Your task to perform on an android device: see sites visited before in the chrome app Image 0: 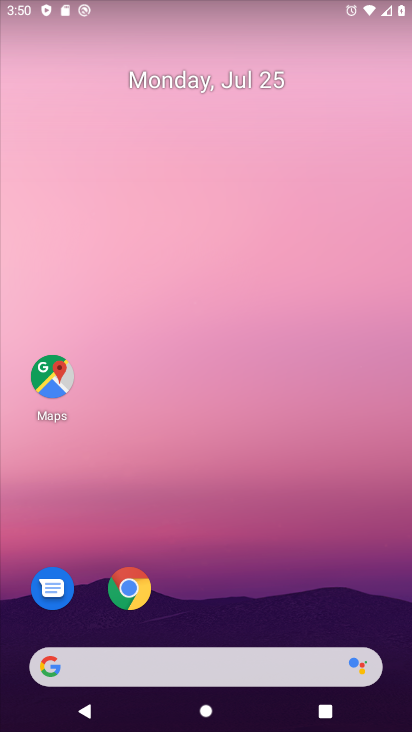
Step 0: click (131, 583)
Your task to perform on an android device: see sites visited before in the chrome app Image 1: 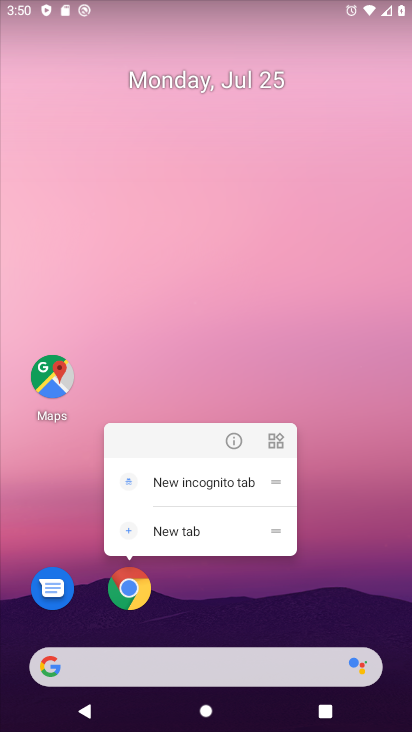
Step 1: click (131, 583)
Your task to perform on an android device: see sites visited before in the chrome app Image 2: 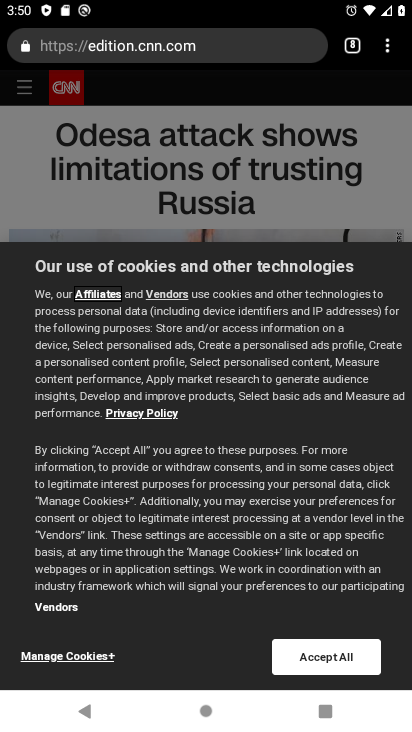
Step 2: click (389, 52)
Your task to perform on an android device: see sites visited before in the chrome app Image 3: 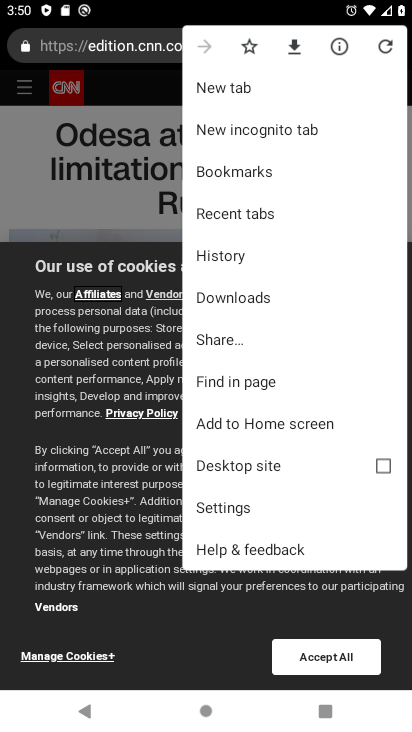
Step 3: click (231, 205)
Your task to perform on an android device: see sites visited before in the chrome app Image 4: 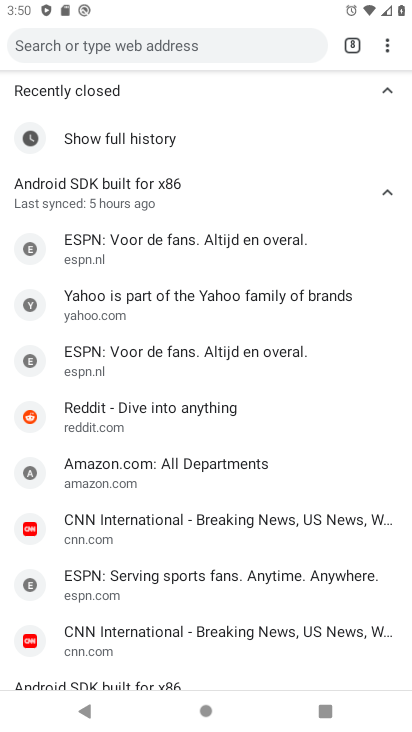
Step 4: task complete